Your task to perform on an android device: change the clock style Image 0: 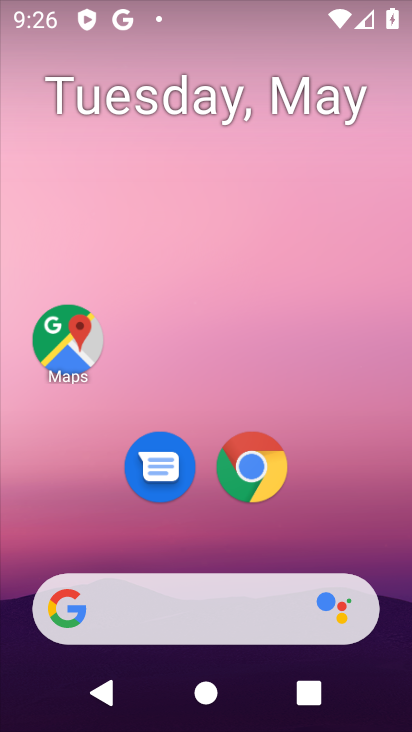
Step 0: drag from (395, 574) to (282, 8)
Your task to perform on an android device: change the clock style Image 1: 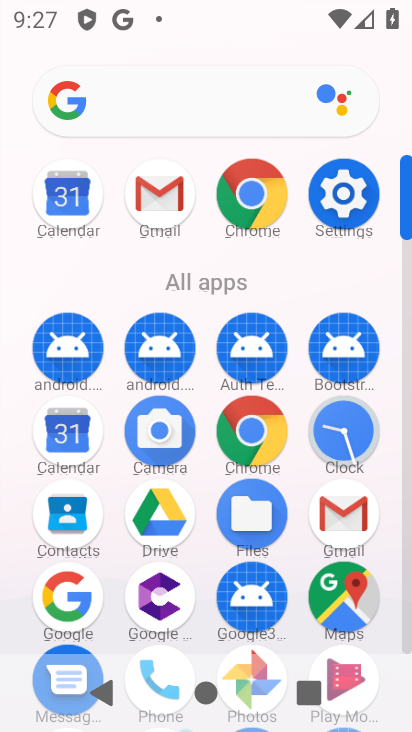
Step 1: drag from (1, 617) to (20, 240)
Your task to perform on an android device: change the clock style Image 2: 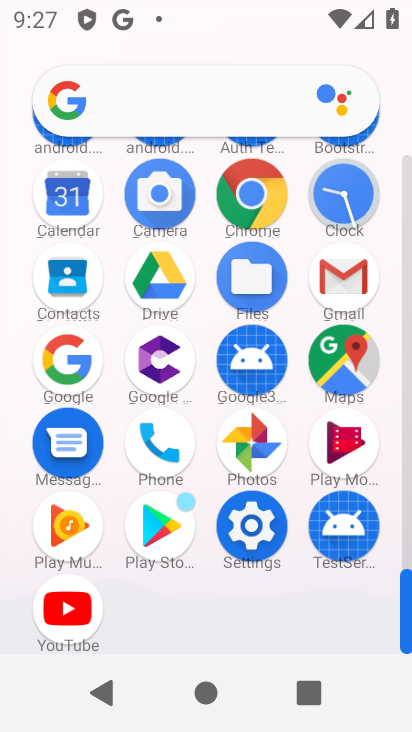
Step 2: click (343, 191)
Your task to perform on an android device: change the clock style Image 3: 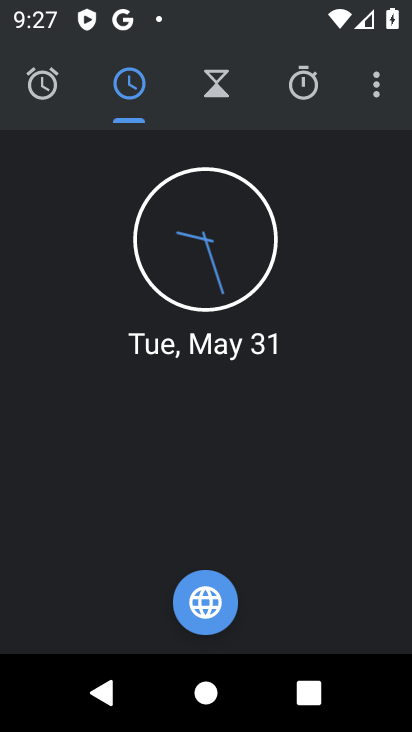
Step 3: drag from (373, 90) to (163, 166)
Your task to perform on an android device: change the clock style Image 4: 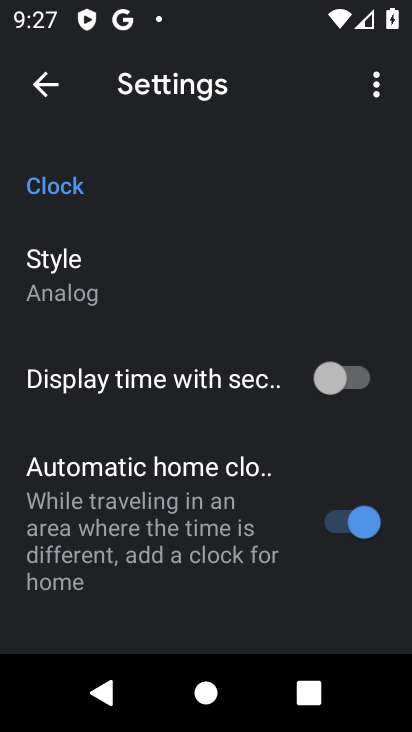
Step 4: drag from (178, 470) to (197, 129)
Your task to perform on an android device: change the clock style Image 5: 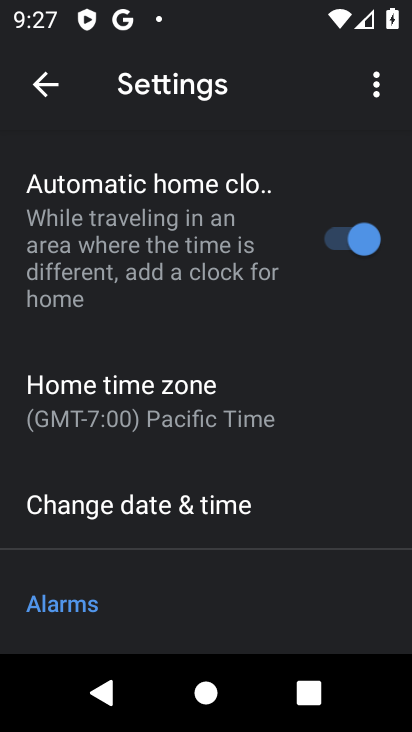
Step 5: drag from (180, 527) to (189, 165)
Your task to perform on an android device: change the clock style Image 6: 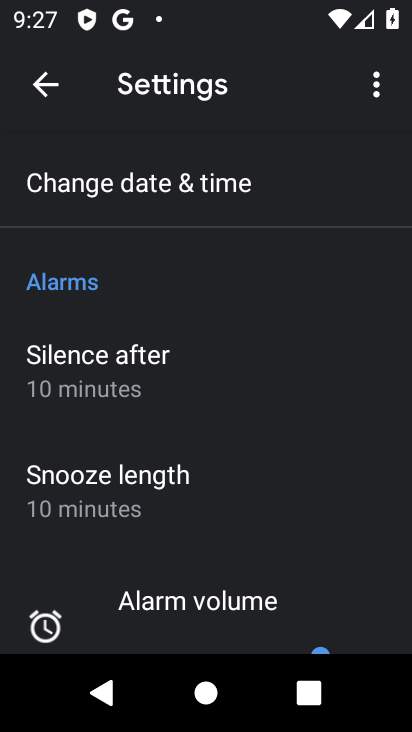
Step 6: click (196, 182)
Your task to perform on an android device: change the clock style Image 7: 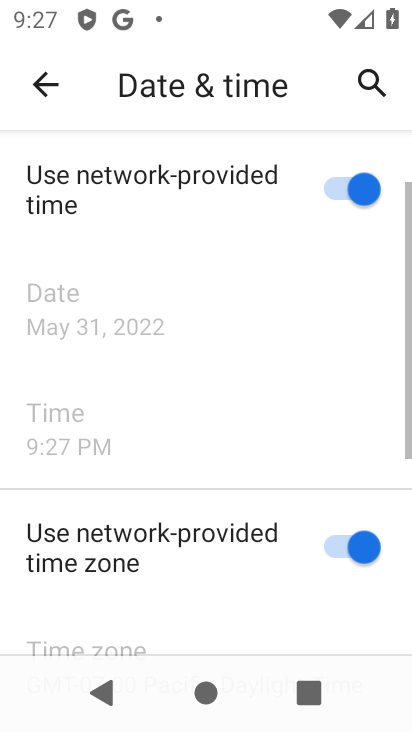
Step 7: click (46, 91)
Your task to perform on an android device: change the clock style Image 8: 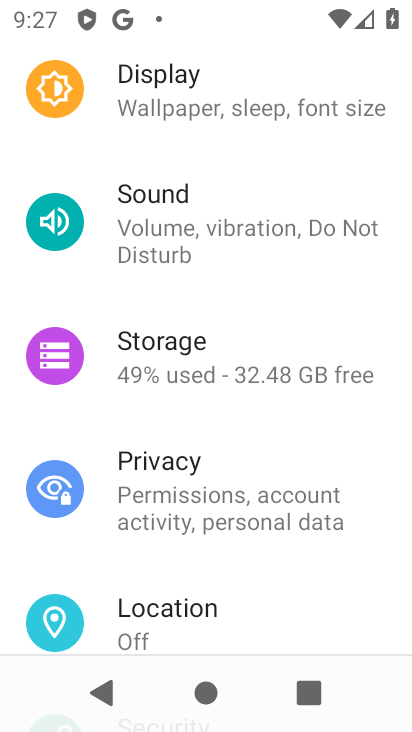
Step 8: press back button
Your task to perform on an android device: change the clock style Image 9: 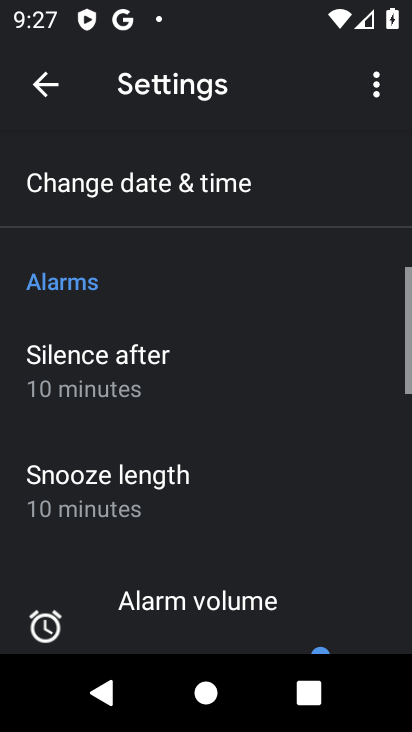
Step 9: drag from (260, 173) to (238, 598)
Your task to perform on an android device: change the clock style Image 10: 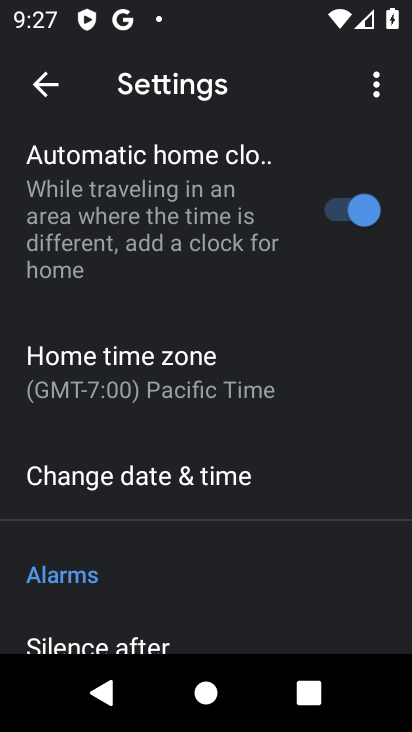
Step 10: drag from (250, 201) to (243, 583)
Your task to perform on an android device: change the clock style Image 11: 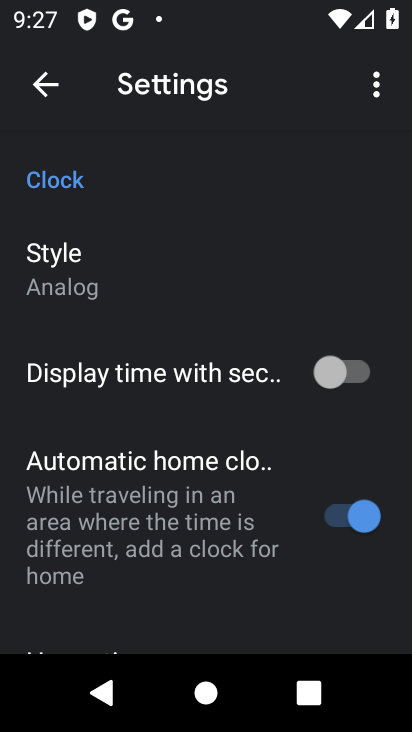
Step 11: click (148, 259)
Your task to perform on an android device: change the clock style Image 12: 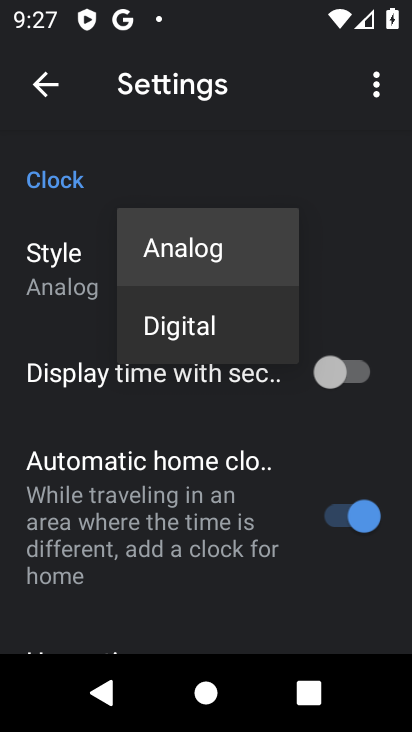
Step 12: click (193, 325)
Your task to perform on an android device: change the clock style Image 13: 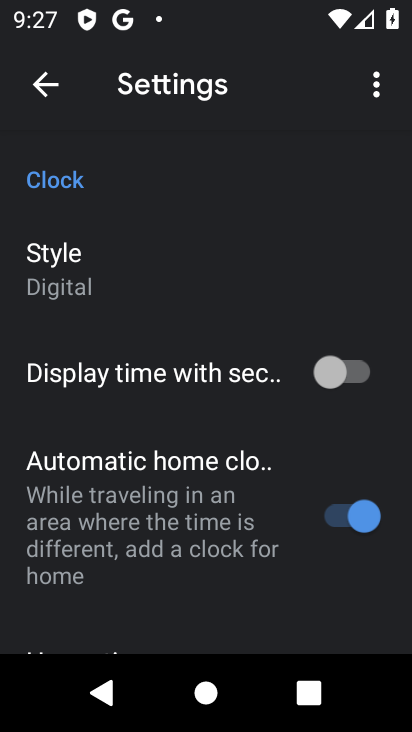
Step 13: task complete